Your task to perform on an android device: Clear the shopping cart on amazon.com. Search for "panasonic triple a" on amazon.com, select the first entry, add it to the cart, then select checkout. Image 0: 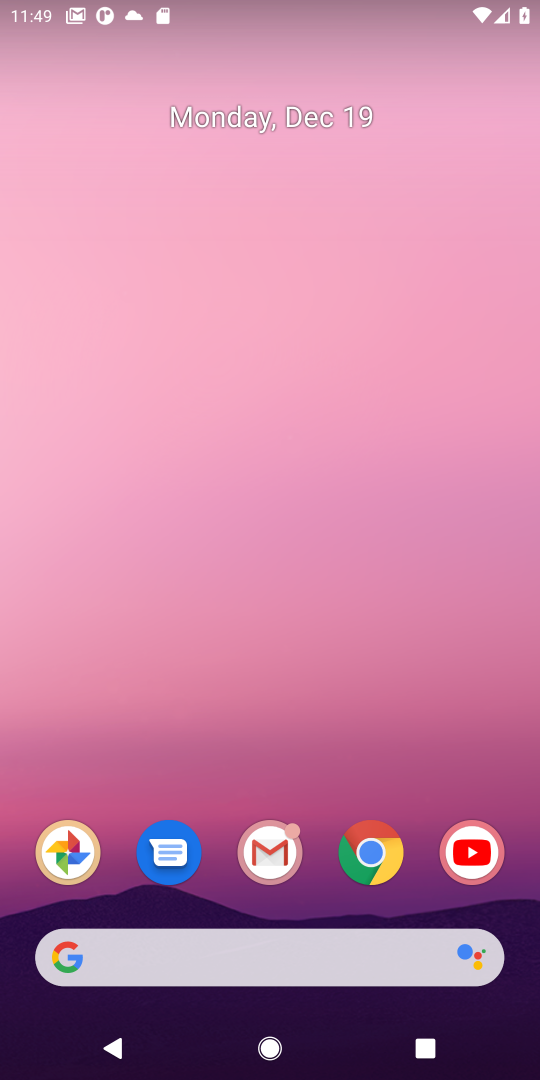
Step 0: click (369, 858)
Your task to perform on an android device: Clear the shopping cart on amazon.com. Search for "panasonic triple a" on amazon.com, select the first entry, add it to the cart, then select checkout. Image 1: 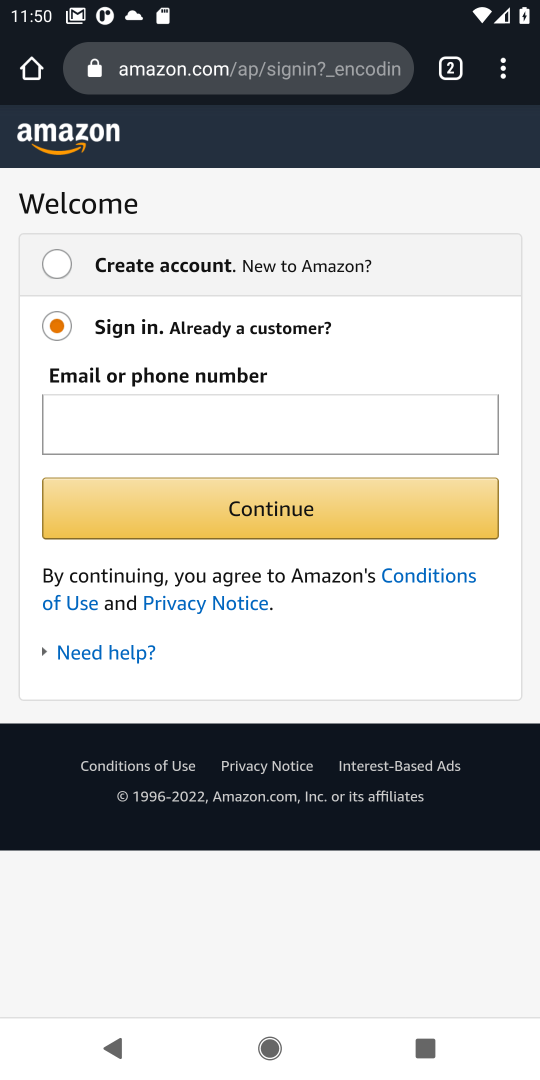
Step 1: press back button
Your task to perform on an android device: Clear the shopping cart on amazon.com. Search for "panasonic triple a" on amazon.com, select the first entry, add it to the cart, then select checkout. Image 2: 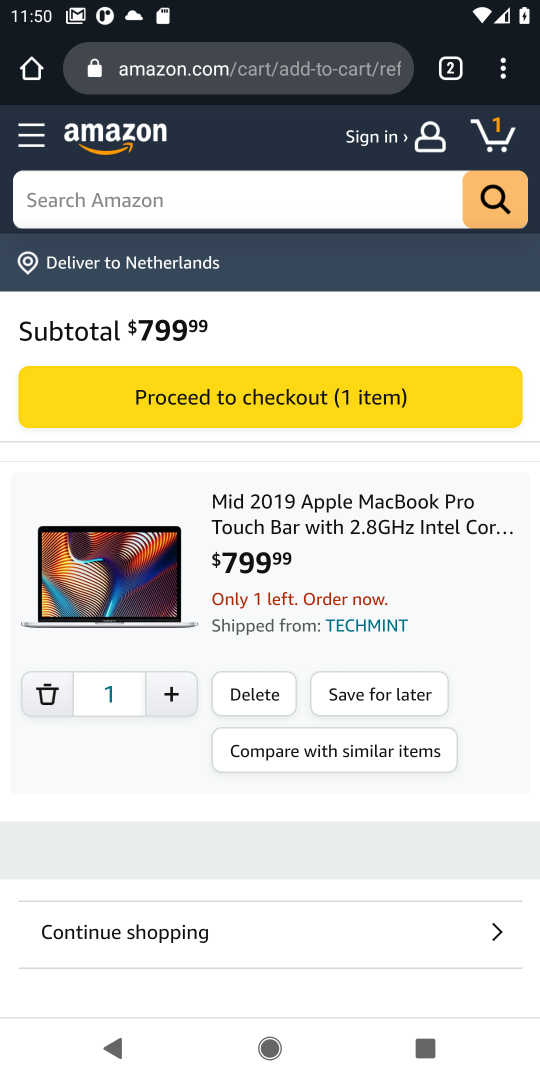
Step 2: click (265, 696)
Your task to perform on an android device: Clear the shopping cart on amazon.com. Search for "panasonic triple a" on amazon.com, select the first entry, add it to the cart, then select checkout. Image 3: 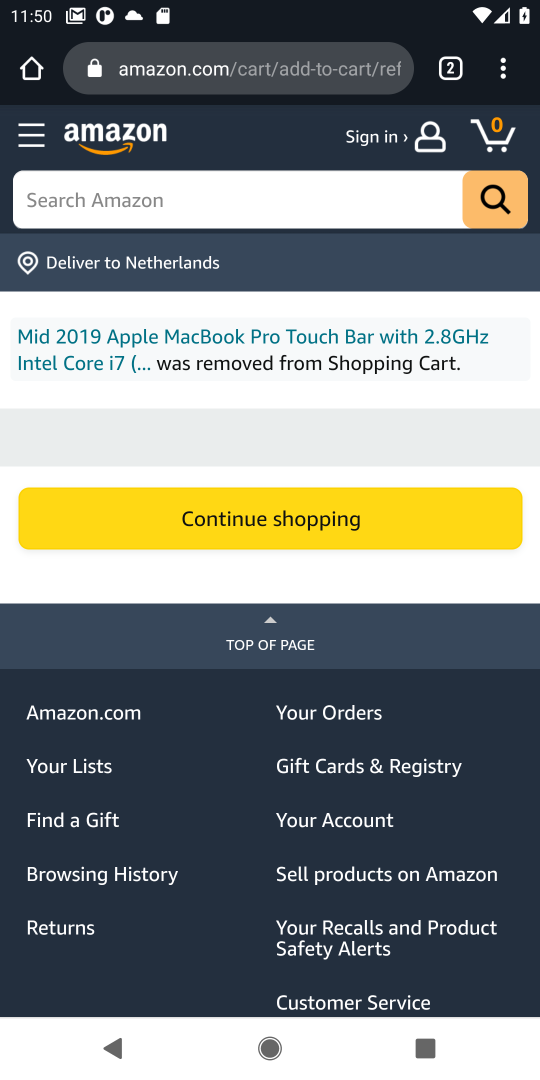
Step 3: click (84, 189)
Your task to perform on an android device: Clear the shopping cart on amazon.com. Search for "panasonic triple a" on amazon.com, select the first entry, add it to the cart, then select checkout. Image 4: 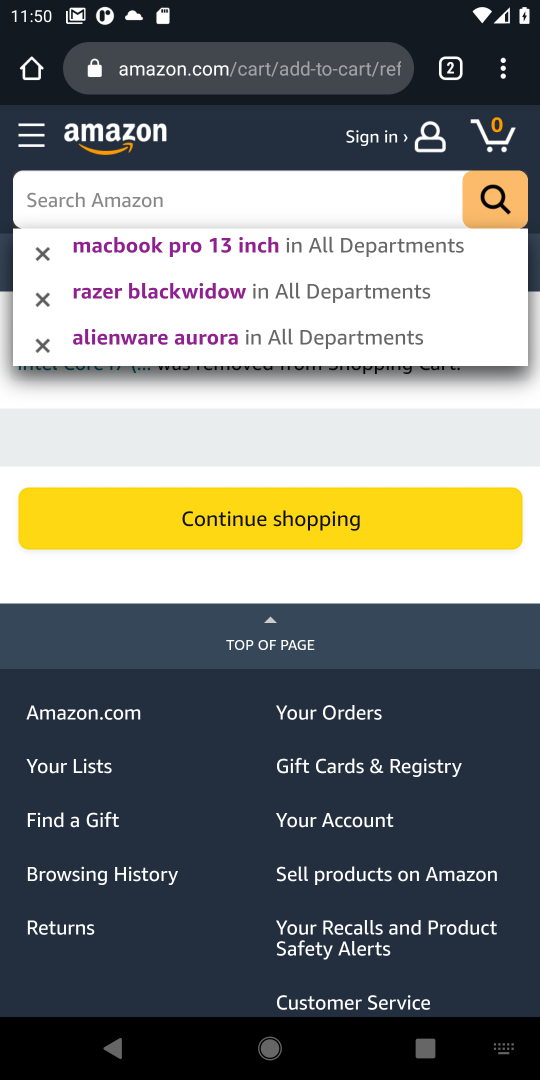
Step 4: type "panasonic triple a"
Your task to perform on an android device: Clear the shopping cart on amazon.com. Search for "panasonic triple a" on amazon.com, select the first entry, add it to the cart, then select checkout. Image 5: 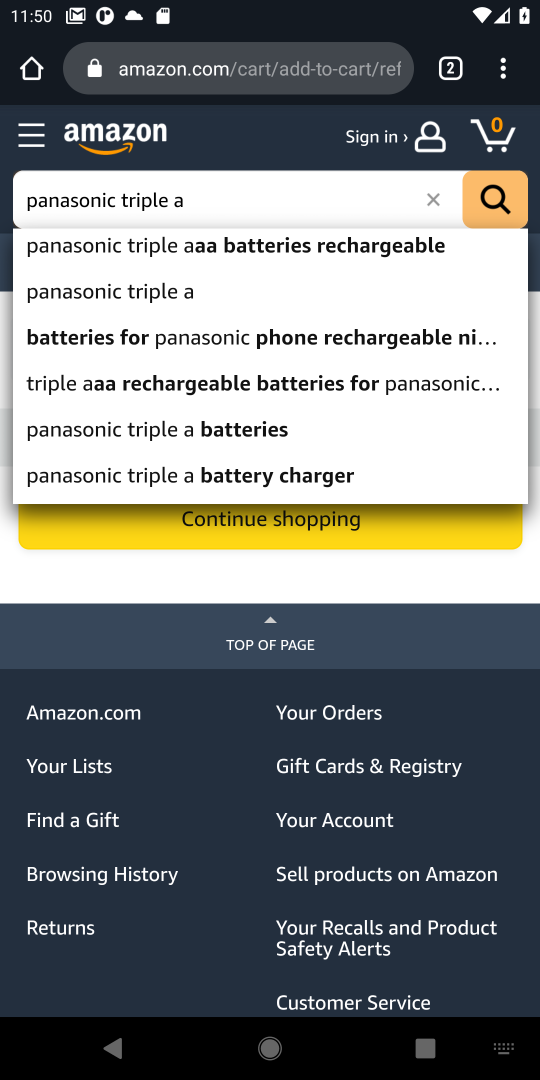
Step 5: click (147, 300)
Your task to perform on an android device: Clear the shopping cart on amazon.com. Search for "panasonic triple a" on amazon.com, select the first entry, add it to the cart, then select checkout. Image 6: 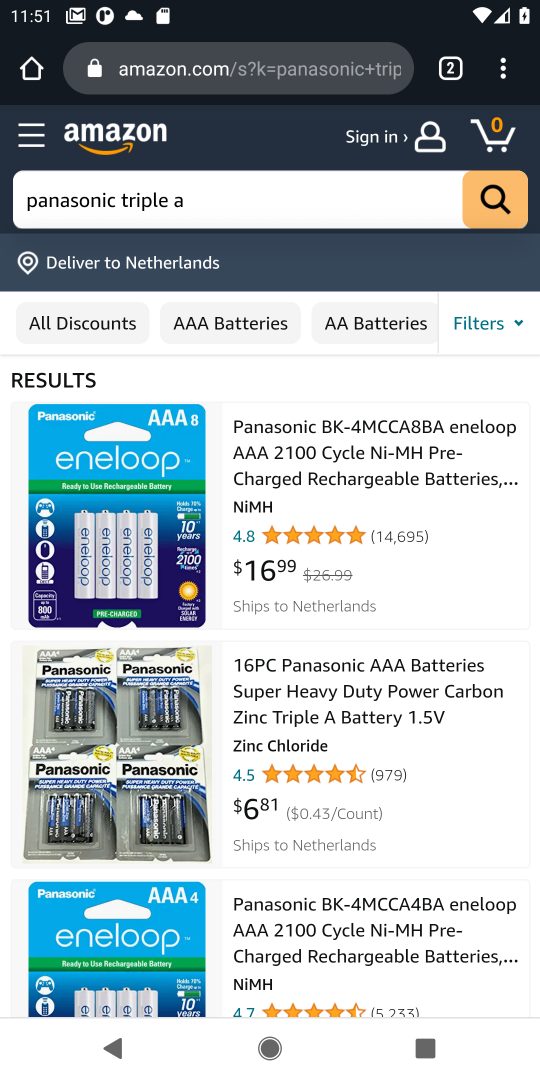
Step 6: click (276, 463)
Your task to perform on an android device: Clear the shopping cart on amazon.com. Search for "panasonic triple a" on amazon.com, select the first entry, add it to the cart, then select checkout. Image 7: 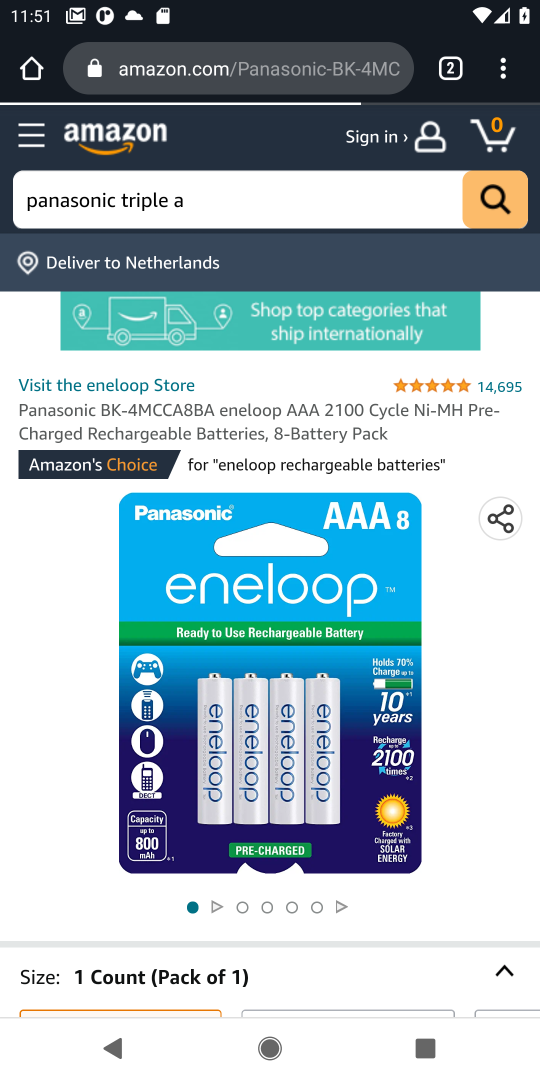
Step 7: drag from (248, 727) to (233, 332)
Your task to perform on an android device: Clear the shopping cart on amazon.com. Search for "panasonic triple a" on amazon.com, select the first entry, add it to the cart, then select checkout. Image 8: 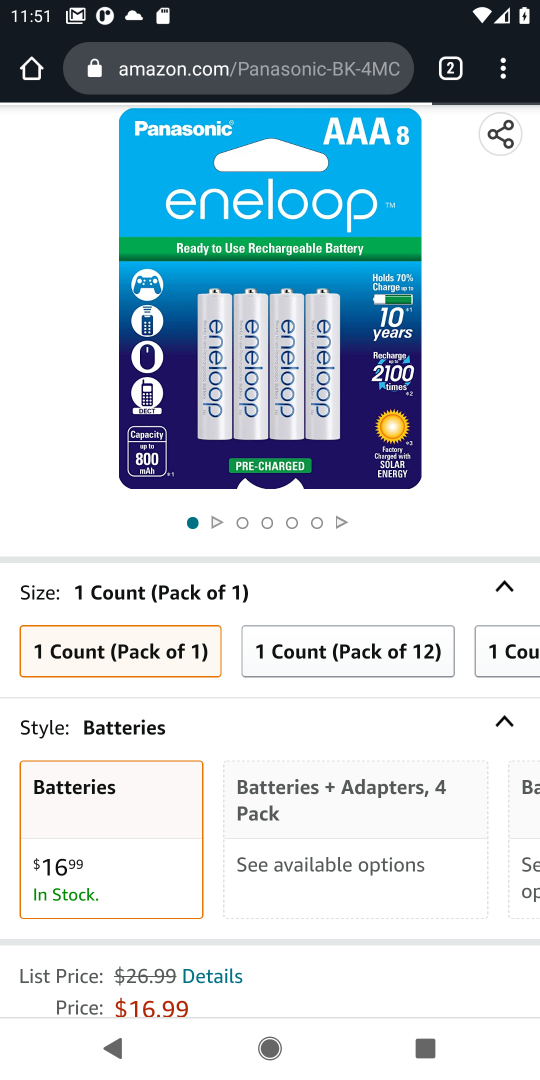
Step 8: drag from (232, 746) to (241, 344)
Your task to perform on an android device: Clear the shopping cart on amazon.com. Search for "panasonic triple a" on amazon.com, select the first entry, add it to the cart, then select checkout. Image 9: 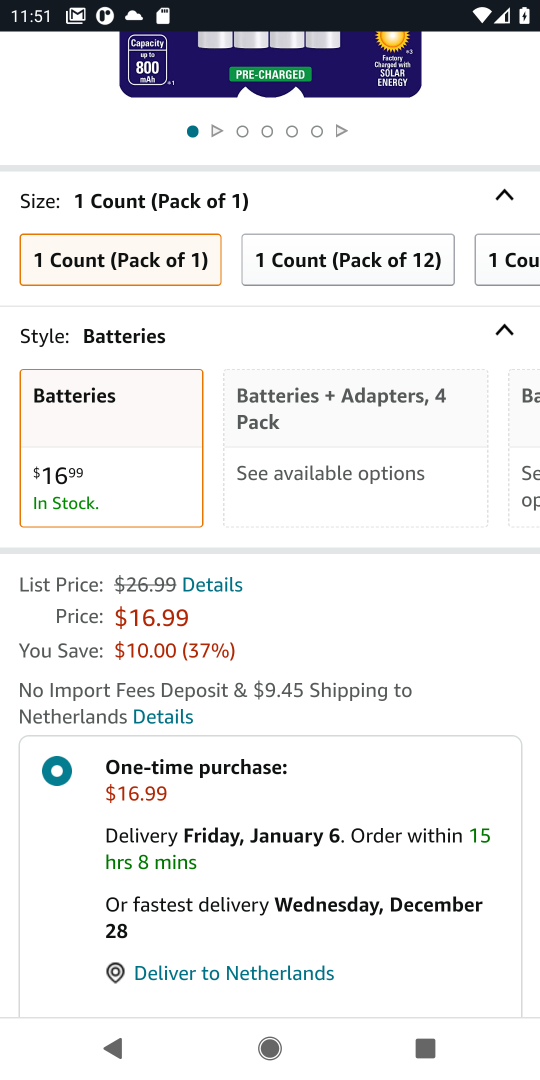
Step 9: drag from (261, 626) to (261, 323)
Your task to perform on an android device: Clear the shopping cart on amazon.com. Search for "panasonic triple a" on amazon.com, select the first entry, add it to the cart, then select checkout. Image 10: 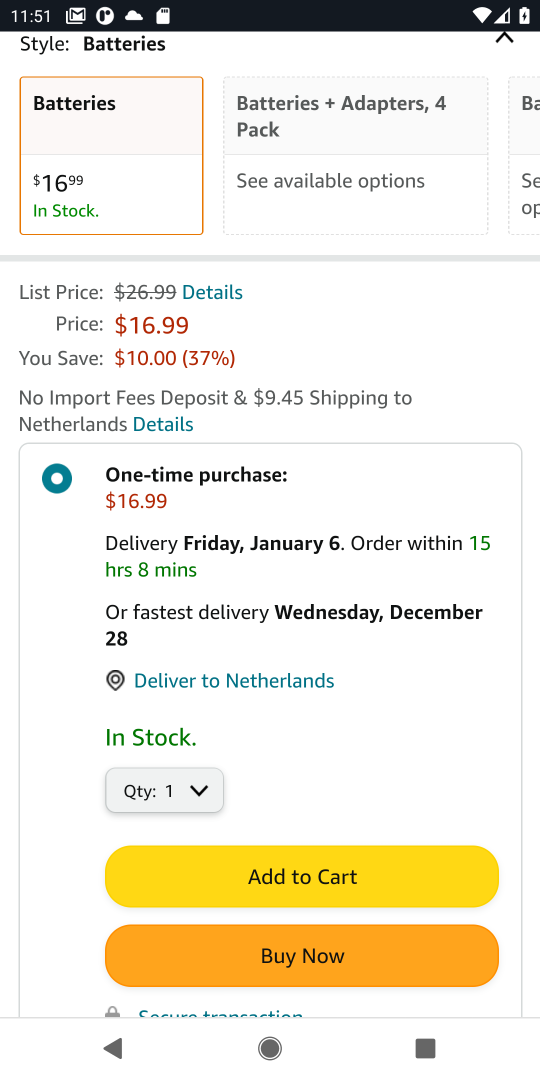
Step 10: click (271, 878)
Your task to perform on an android device: Clear the shopping cart on amazon.com. Search for "panasonic triple a" on amazon.com, select the first entry, add it to the cart, then select checkout. Image 11: 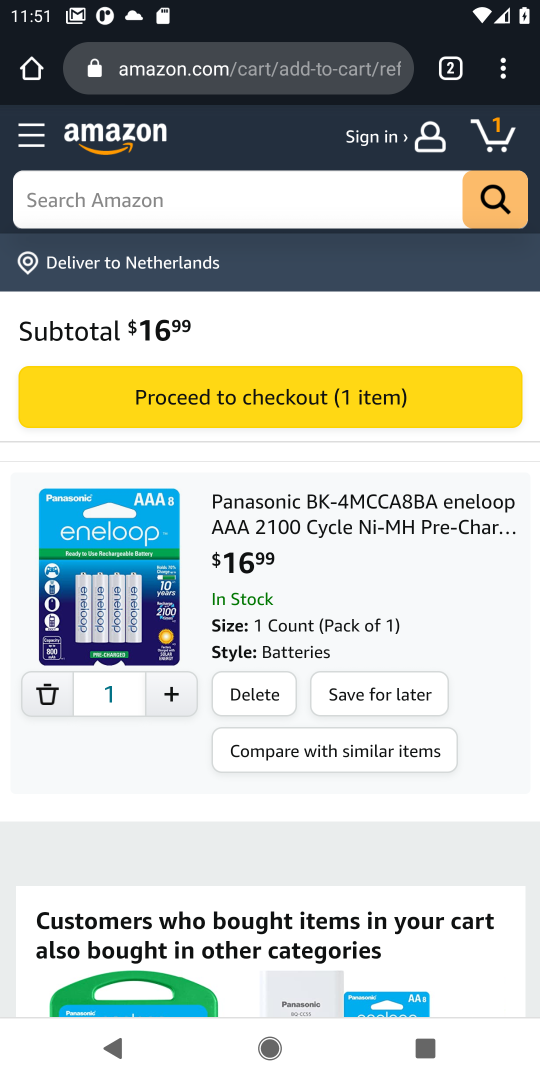
Step 11: click (266, 390)
Your task to perform on an android device: Clear the shopping cart on amazon.com. Search for "panasonic triple a" on amazon.com, select the first entry, add it to the cart, then select checkout. Image 12: 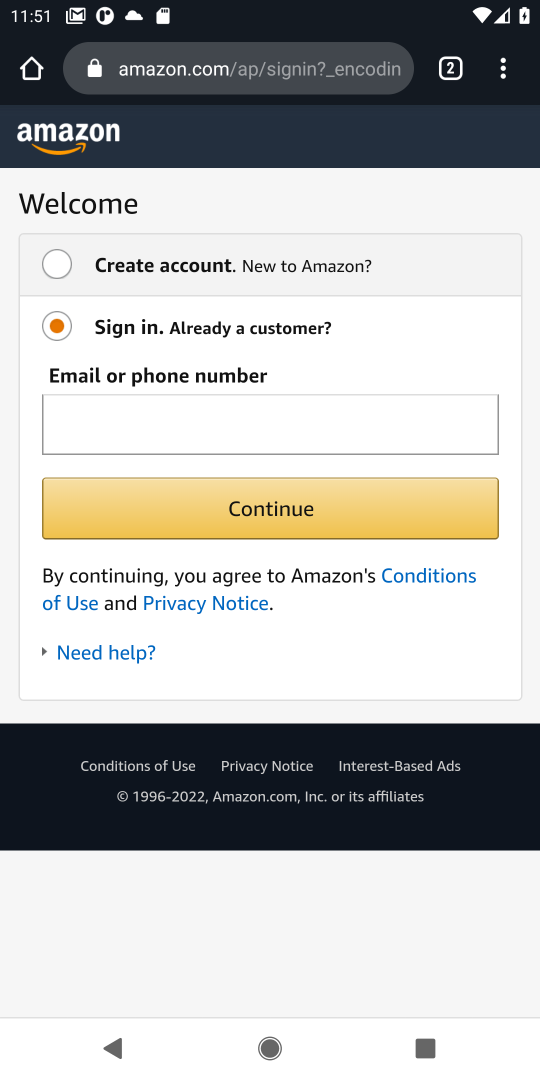
Step 12: task complete